Your task to perform on an android device: check out phone information Image 0: 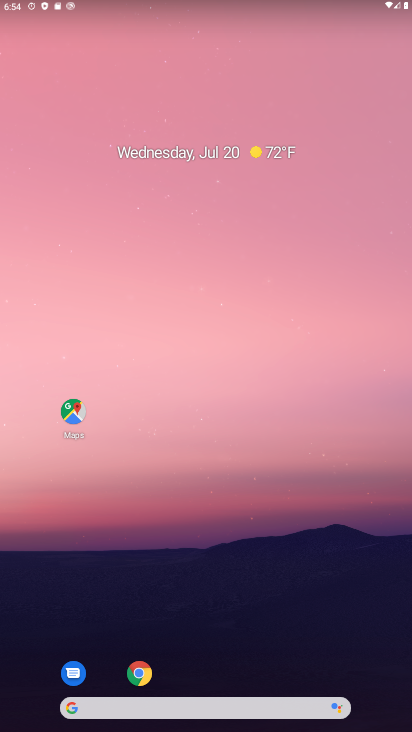
Step 0: drag from (373, 650) to (192, 30)
Your task to perform on an android device: check out phone information Image 1: 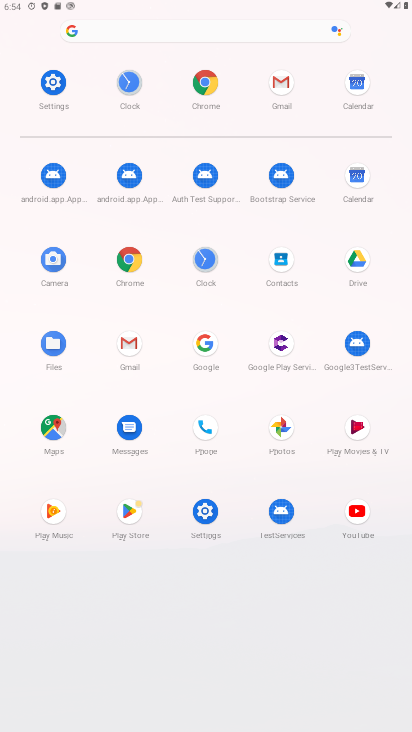
Step 1: click (209, 511)
Your task to perform on an android device: check out phone information Image 2: 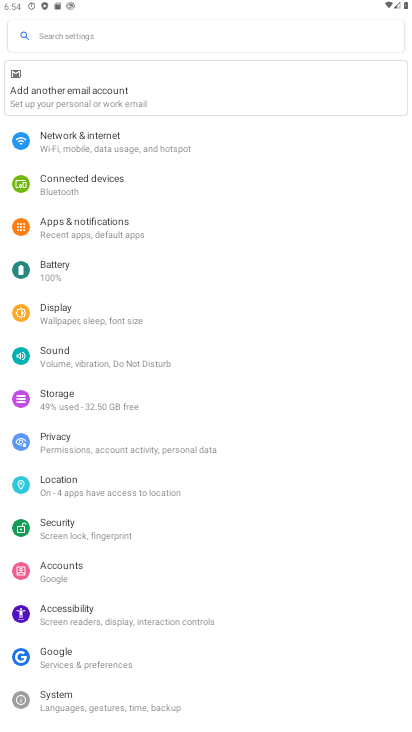
Step 2: task complete